Your task to perform on an android device: Open Yahoo.com Image 0: 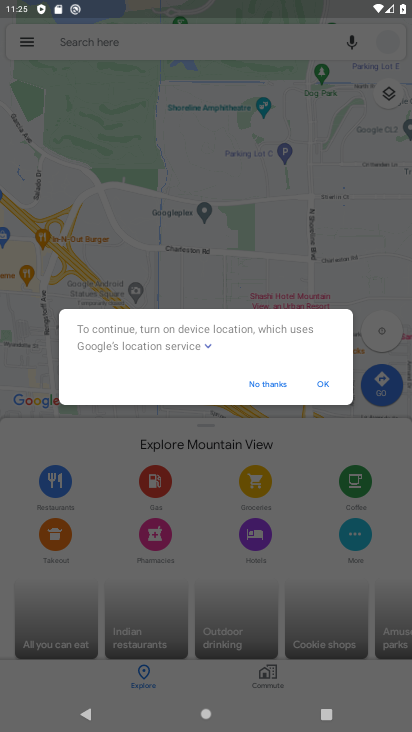
Step 0: press home button
Your task to perform on an android device: Open Yahoo.com Image 1: 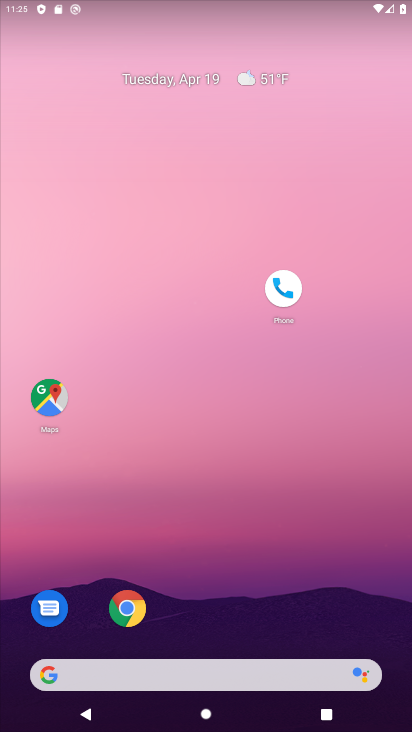
Step 1: click (127, 608)
Your task to perform on an android device: Open Yahoo.com Image 2: 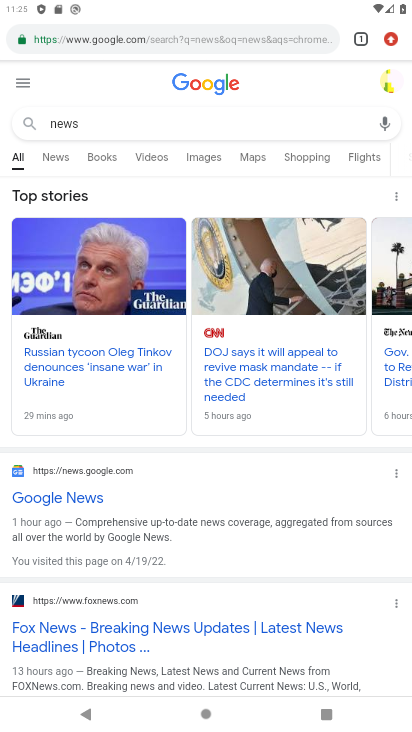
Step 2: click (81, 130)
Your task to perform on an android device: Open Yahoo.com Image 3: 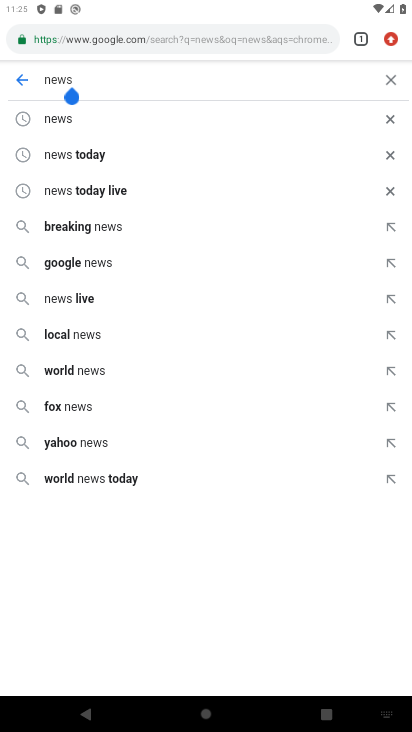
Step 3: click (385, 82)
Your task to perform on an android device: Open Yahoo.com Image 4: 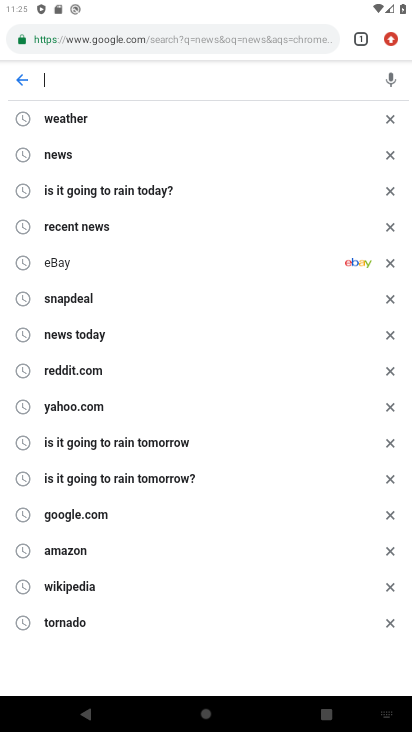
Step 4: type "yahoo.com"
Your task to perform on an android device: Open Yahoo.com Image 5: 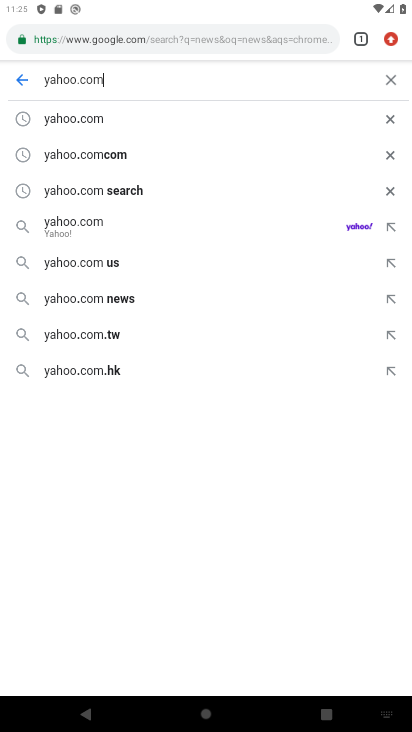
Step 5: click (75, 118)
Your task to perform on an android device: Open Yahoo.com Image 6: 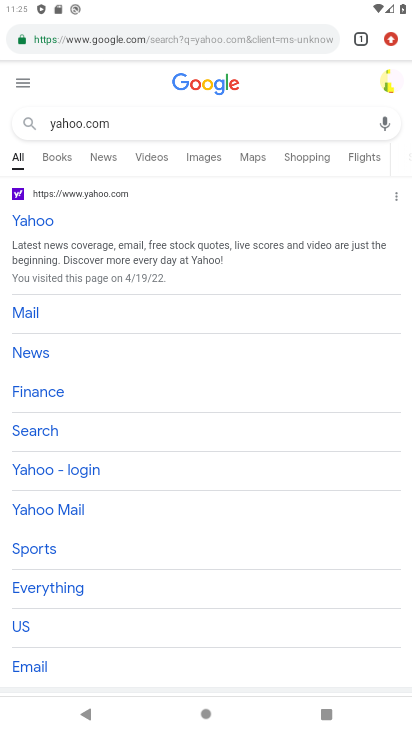
Step 6: task complete